Your task to perform on an android device: Go to Yahoo.com Image 0: 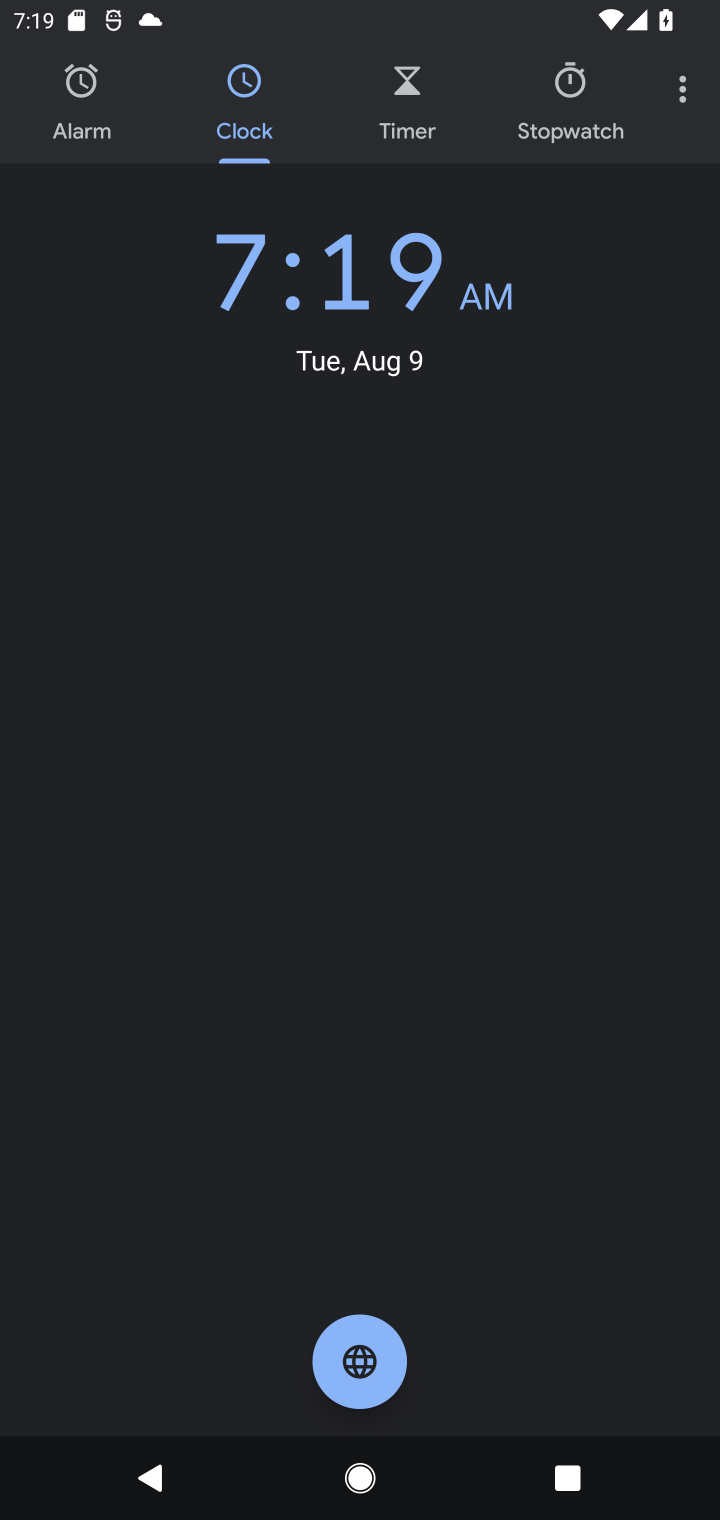
Step 0: press home button
Your task to perform on an android device: Go to Yahoo.com Image 1: 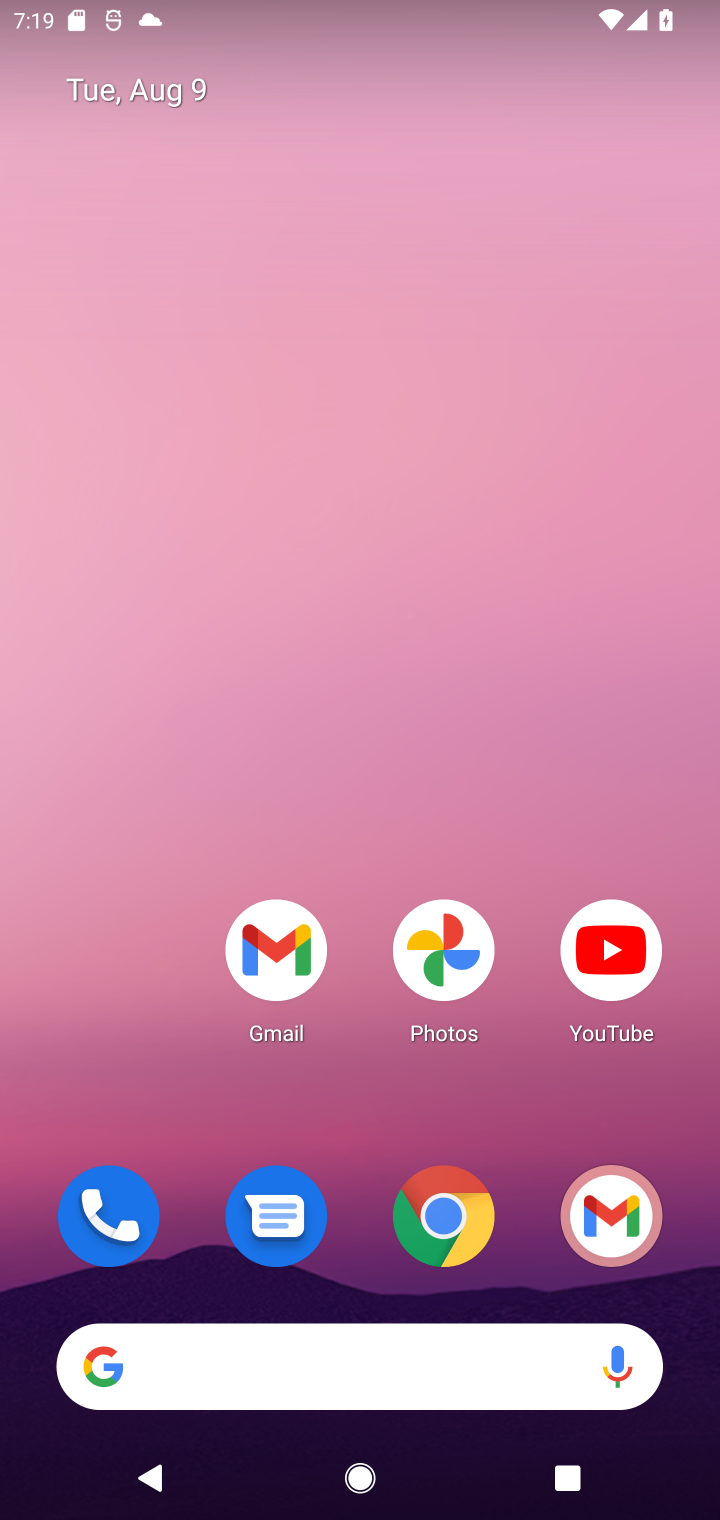
Step 1: click (374, 1163)
Your task to perform on an android device: Go to Yahoo.com Image 2: 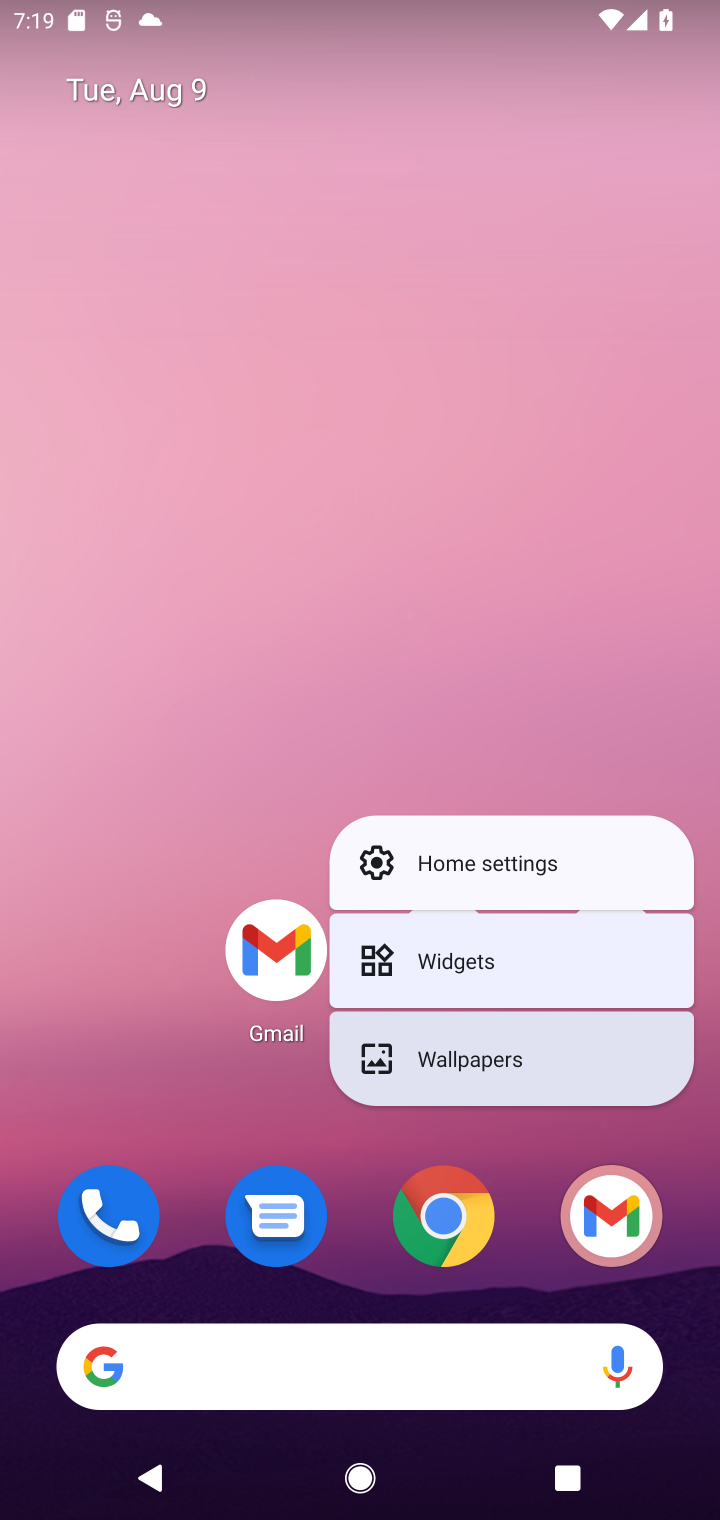
Step 2: click (432, 1223)
Your task to perform on an android device: Go to Yahoo.com Image 3: 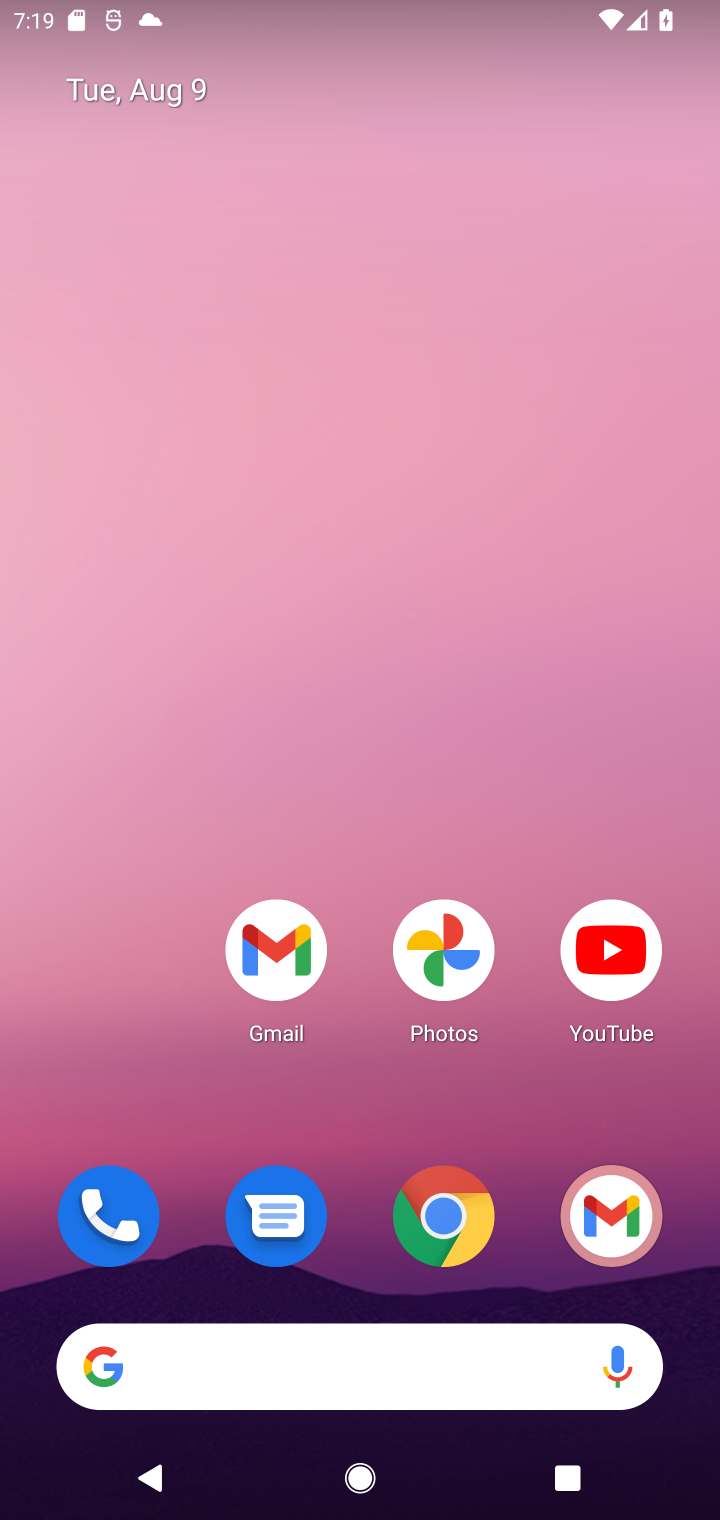
Step 3: click (441, 1178)
Your task to perform on an android device: Go to Yahoo.com Image 4: 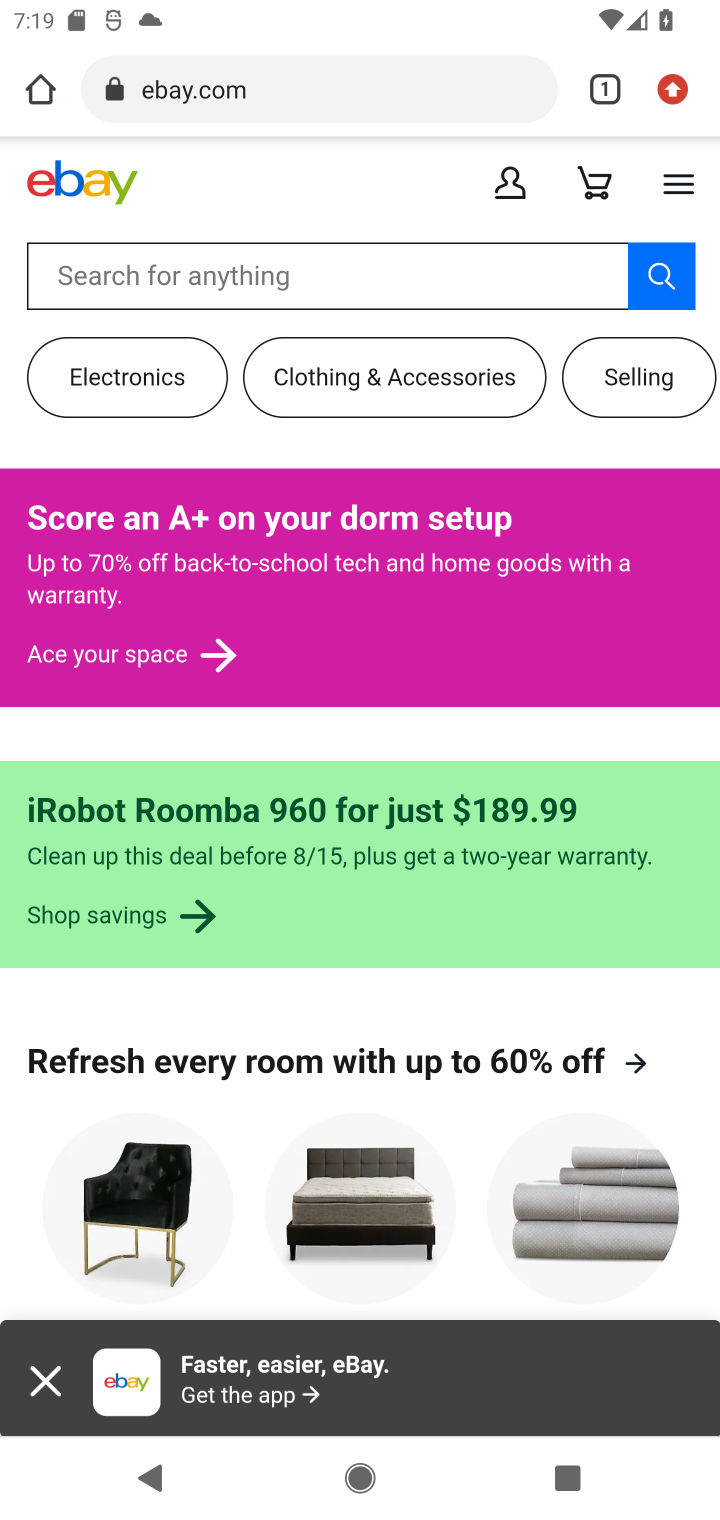
Step 4: click (640, 83)
Your task to perform on an android device: Go to Yahoo.com Image 5: 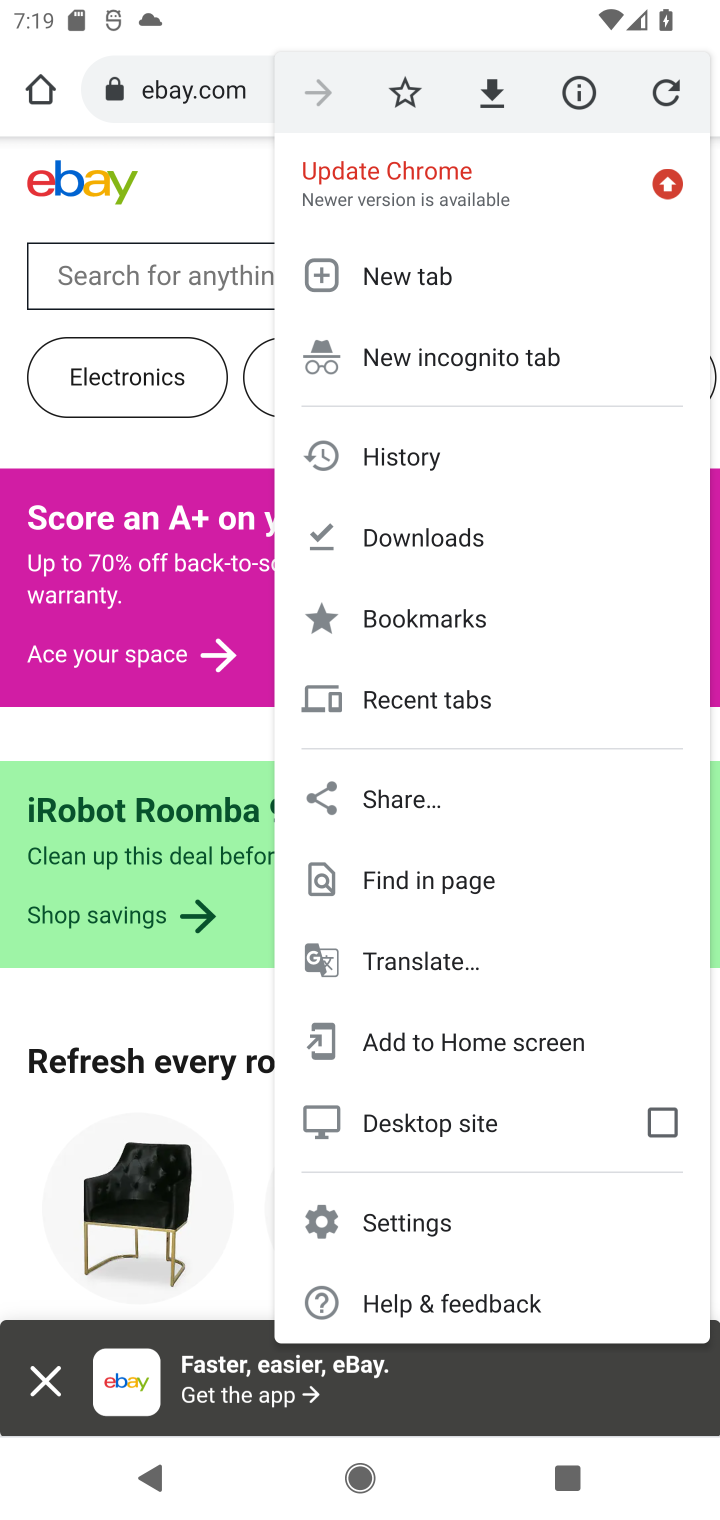
Step 5: click (394, 277)
Your task to perform on an android device: Go to Yahoo.com Image 6: 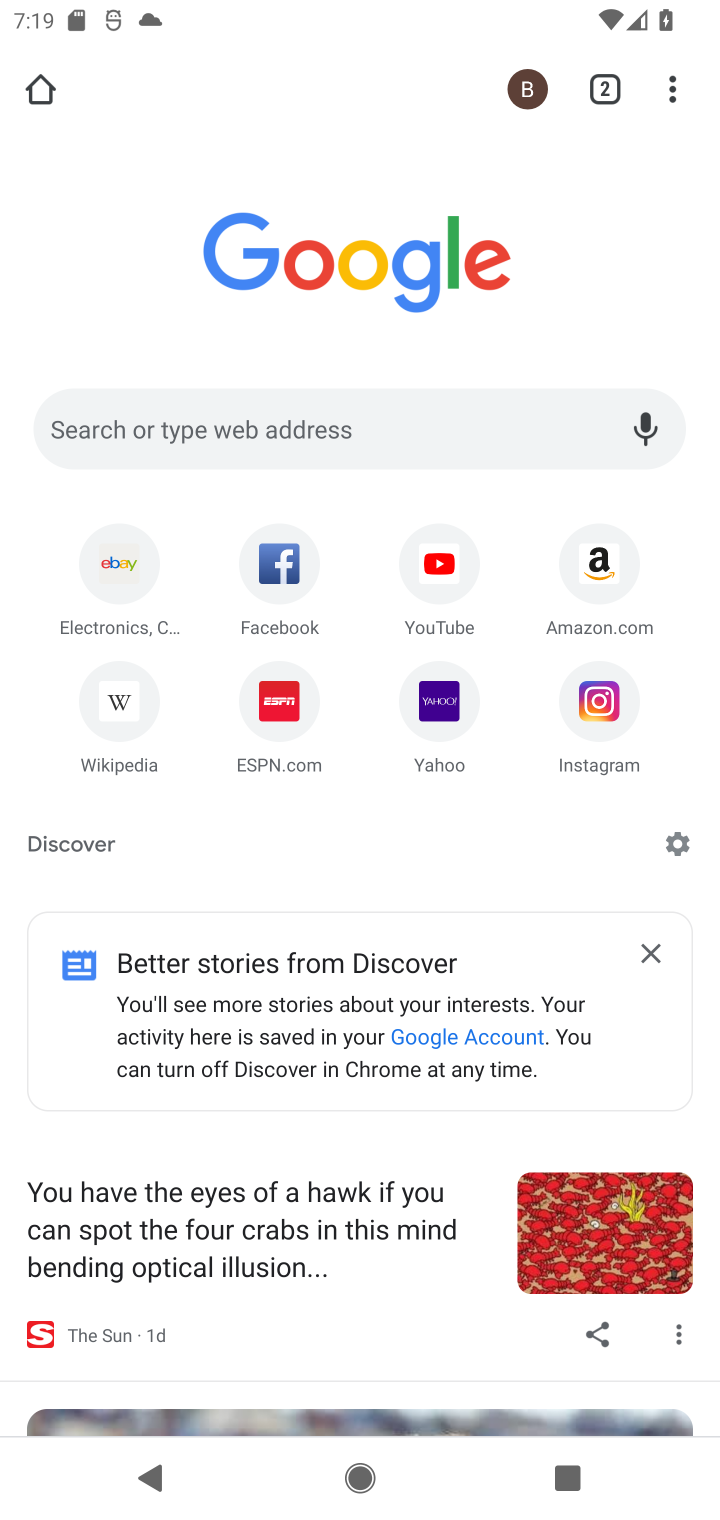
Step 6: click (430, 709)
Your task to perform on an android device: Go to Yahoo.com Image 7: 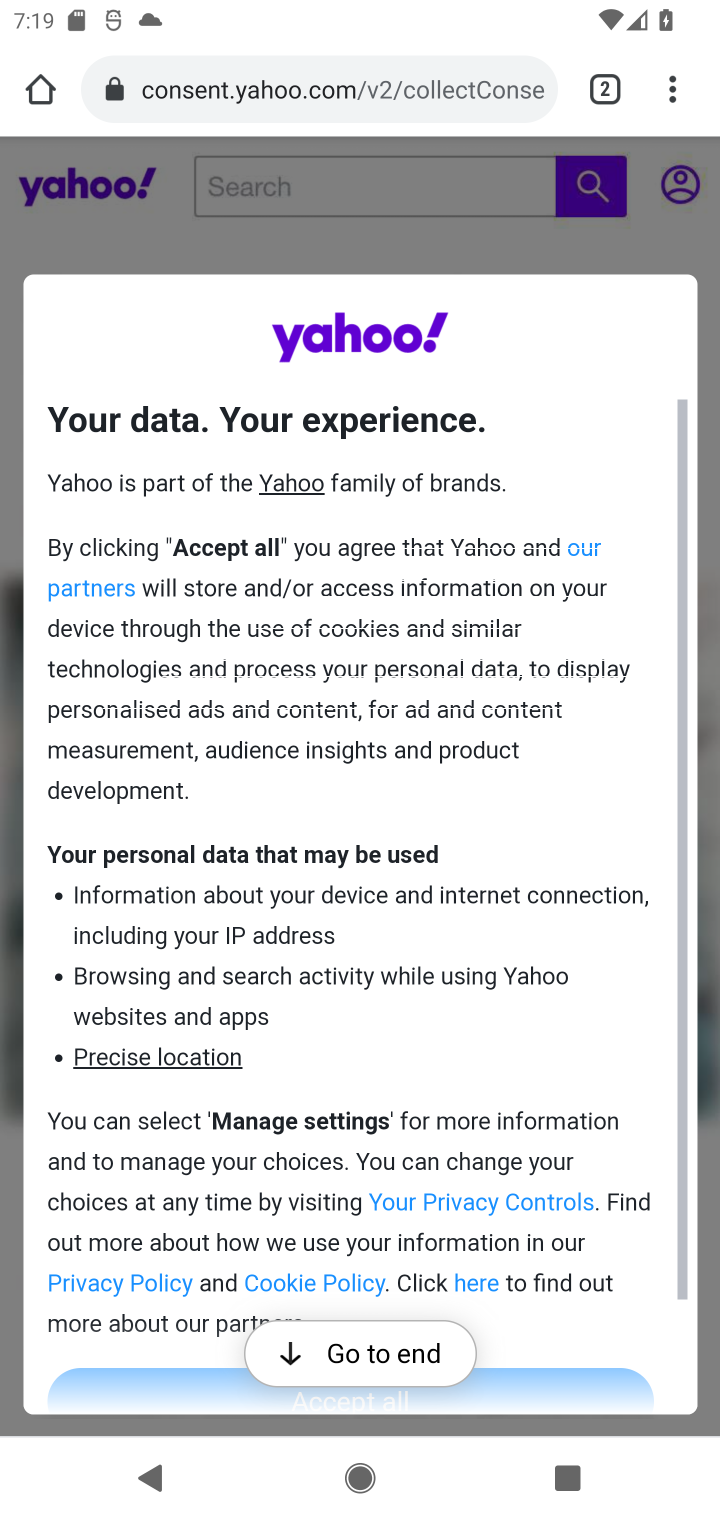
Step 7: click (385, 1338)
Your task to perform on an android device: Go to Yahoo.com Image 8: 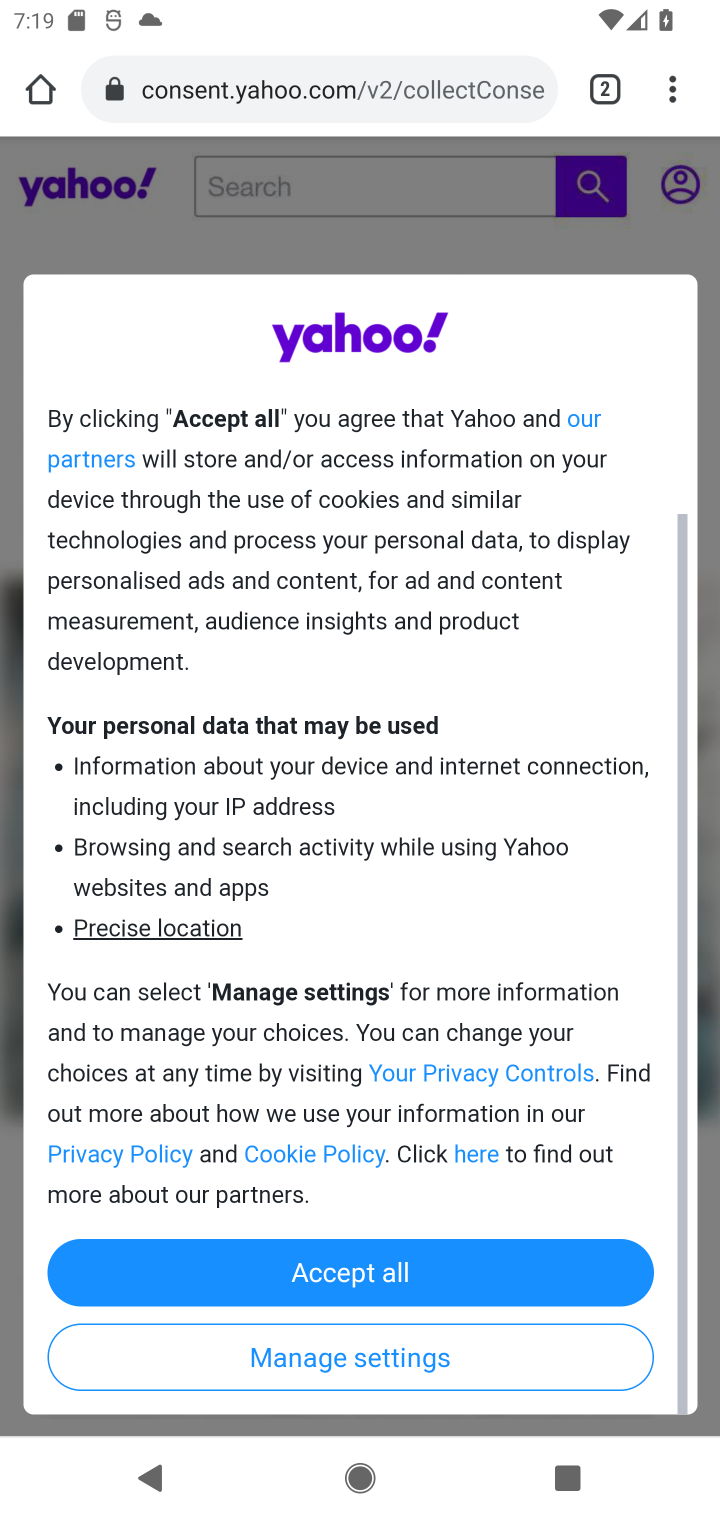
Step 8: click (441, 1259)
Your task to perform on an android device: Go to Yahoo.com Image 9: 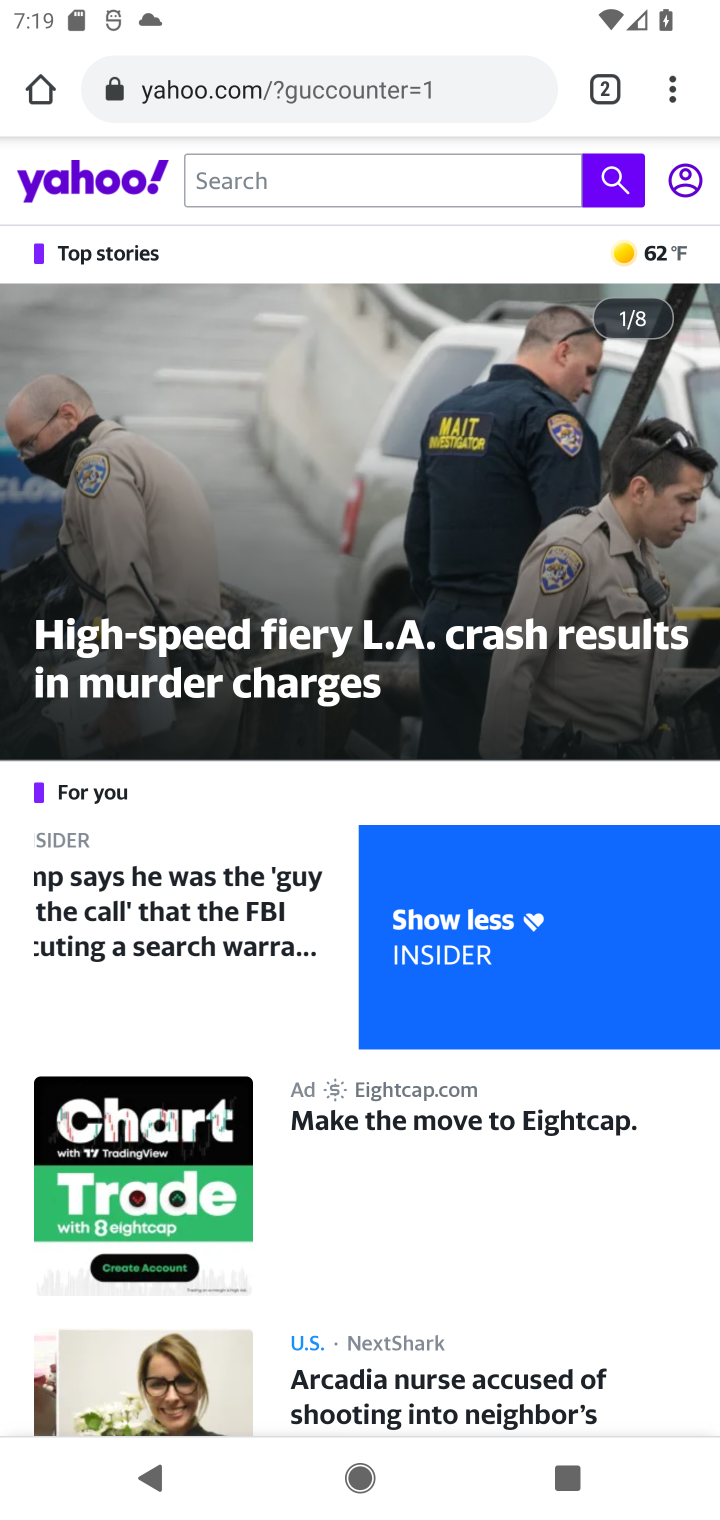
Step 9: task complete